Your task to perform on an android device: Go to Yahoo.com Image 0: 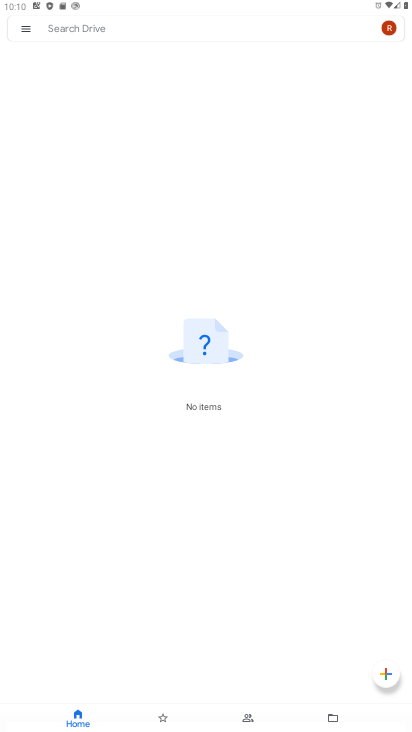
Step 0: press home button
Your task to perform on an android device: Go to Yahoo.com Image 1: 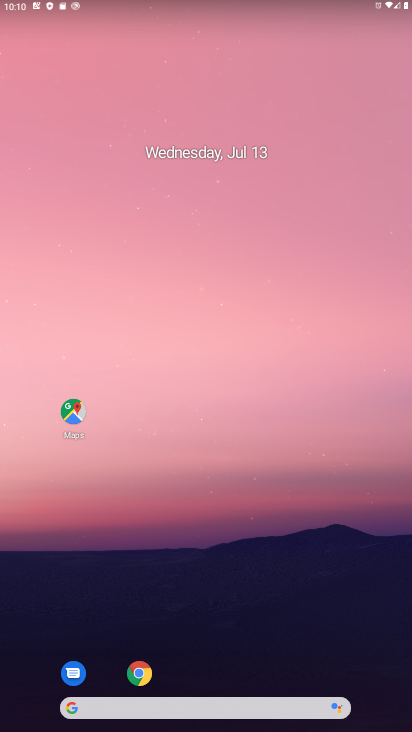
Step 1: click (142, 683)
Your task to perform on an android device: Go to Yahoo.com Image 2: 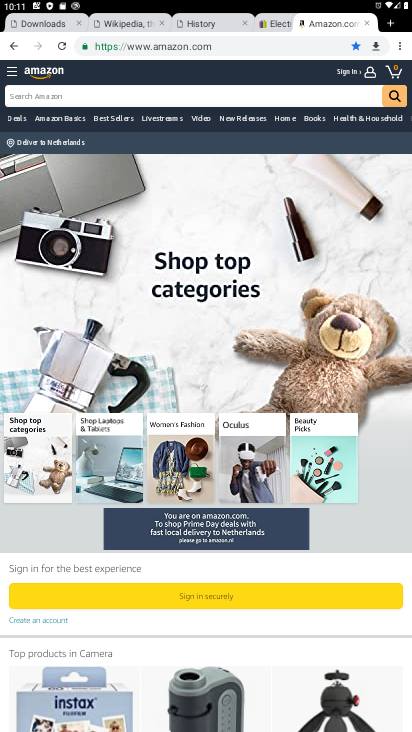
Step 2: click (390, 19)
Your task to perform on an android device: Go to Yahoo.com Image 3: 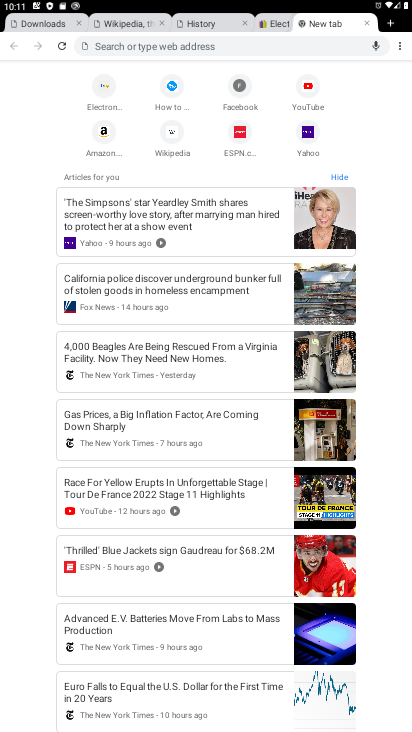
Step 3: click (310, 134)
Your task to perform on an android device: Go to Yahoo.com Image 4: 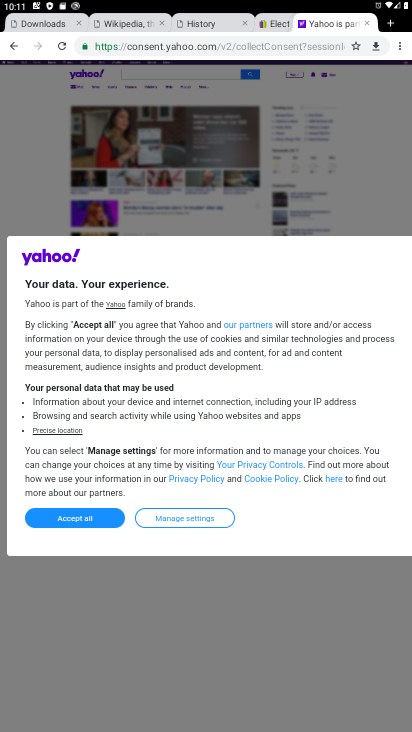
Step 4: task complete